Your task to perform on an android device: search for starred emails in the gmail app Image 0: 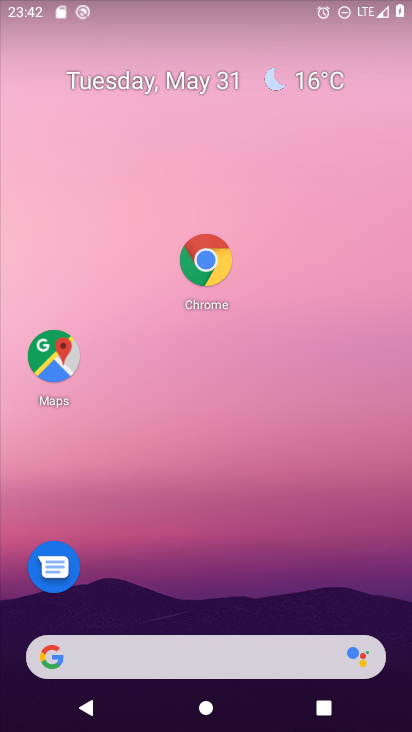
Step 0: drag from (136, 632) to (176, 243)
Your task to perform on an android device: search for starred emails in the gmail app Image 1: 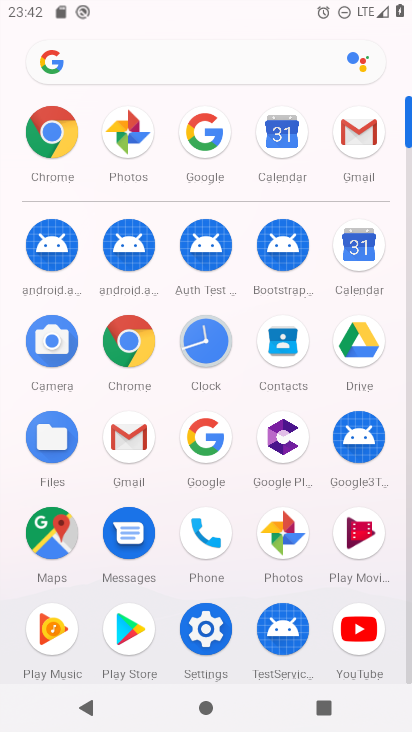
Step 1: click (356, 153)
Your task to perform on an android device: search for starred emails in the gmail app Image 2: 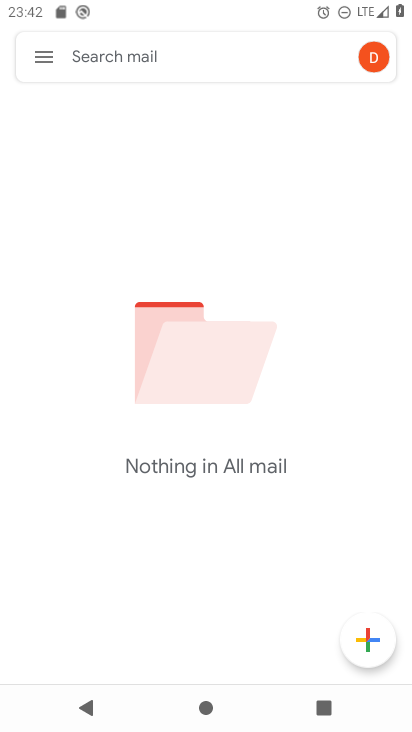
Step 2: click (42, 66)
Your task to perform on an android device: search for starred emails in the gmail app Image 3: 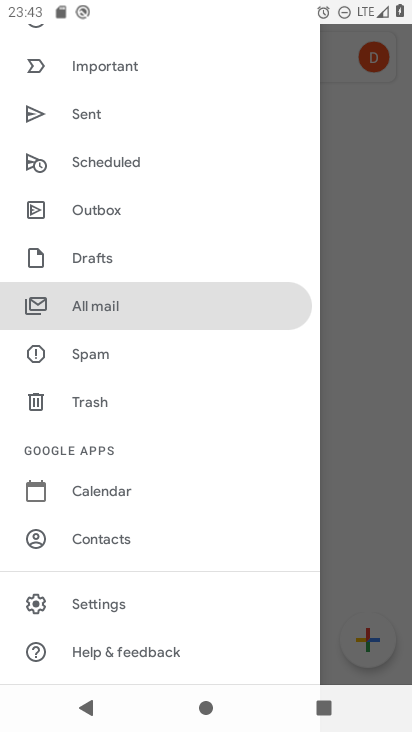
Step 3: drag from (104, 95) to (114, 577)
Your task to perform on an android device: search for starred emails in the gmail app Image 4: 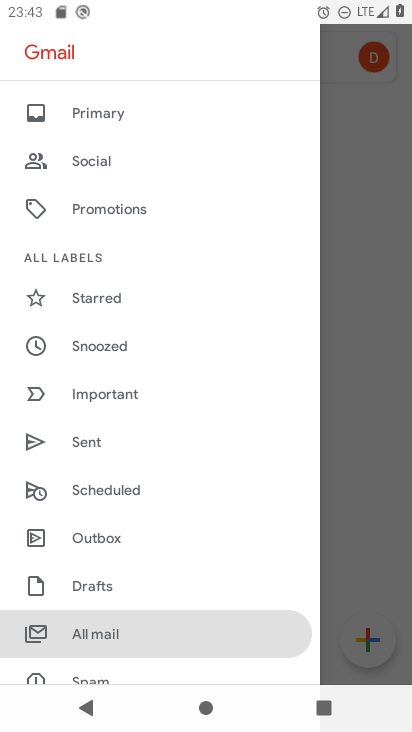
Step 4: click (101, 300)
Your task to perform on an android device: search for starred emails in the gmail app Image 5: 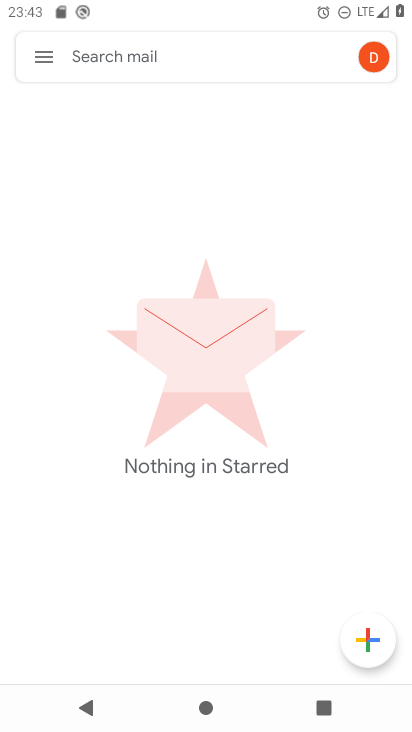
Step 5: task complete